Your task to perform on an android device: Clear the cart on newegg. Search for apple airpods pro on newegg, select the first entry, and add it to the cart. Image 0: 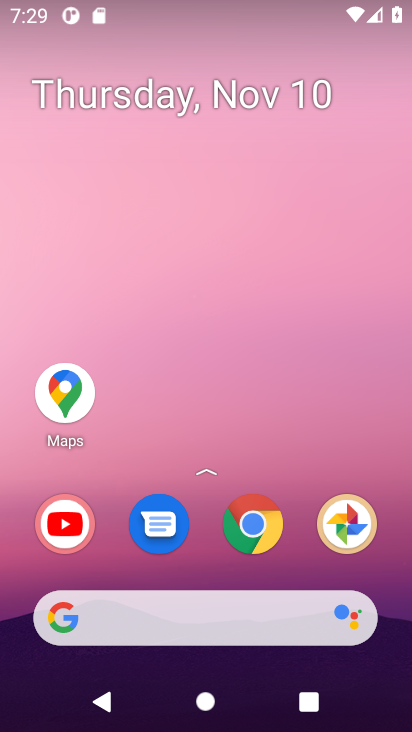
Step 0: click (246, 614)
Your task to perform on an android device: Clear the cart on newegg. Search for apple airpods pro on newegg, select the first entry, and add it to the cart. Image 1: 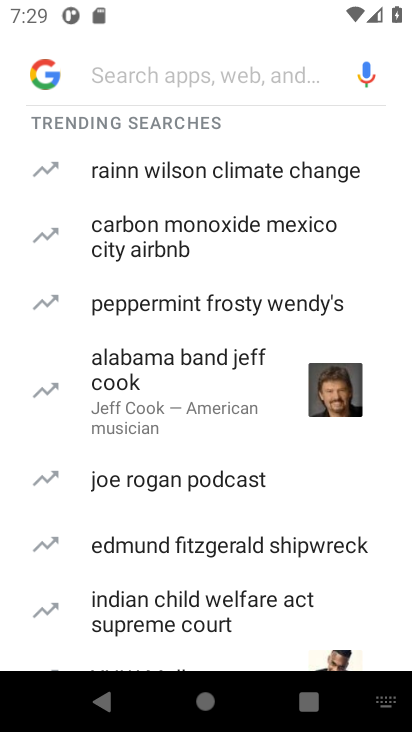
Step 1: type "newegg"
Your task to perform on an android device: Clear the cart on newegg. Search for apple airpods pro on newegg, select the first entry, and add it to the cart. Image 2: 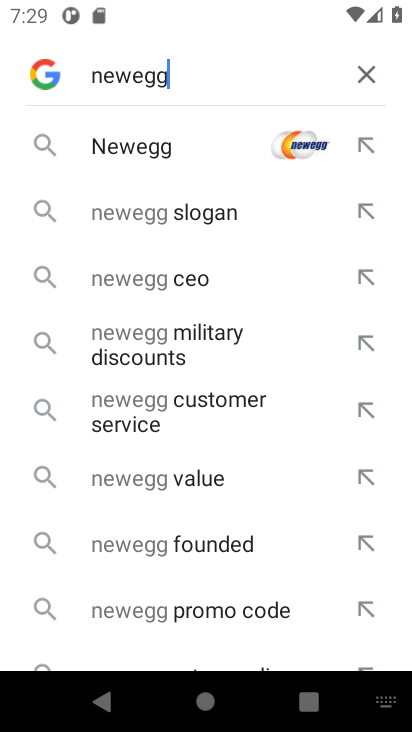
Step 2: click (154, 157)
Your task to perform on an android device: Clear the cart on newegg. Search for apple airpods pro on newegg, select the first entry, and add it to the cart. Image 3: 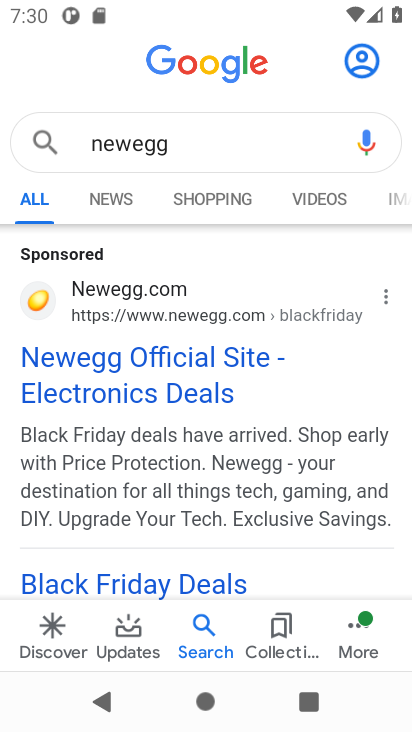
Step 3: drag from (192, 500) to (335, 198)
Your task to perform on an android device: Clear the cart on newegg. Search for apple airpods pro on newegg, select the first entry, and add it to the cart. Image 4: 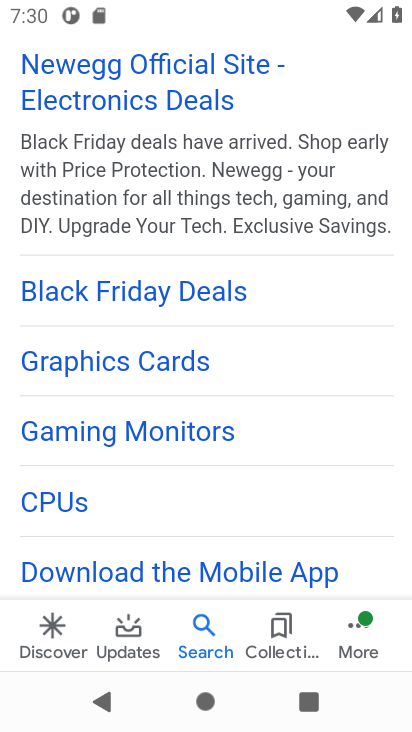
Step 4: drag from (222, 510) to (349, 156)
Your task to perform on an android device: Clear the cart on newegg. Search for apple airpods pro on newegg, select the first entry, and add it to the cart. Image 5: 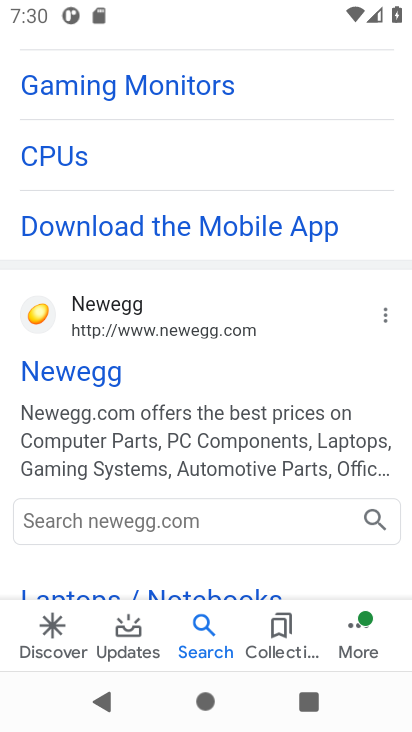
Step 5: click (99, 512)
Your task to perform on an android device: Clear the cart on newegg. Search for apple airpods pro on newegg, select the first entry, and add it to the cart. Image 6: 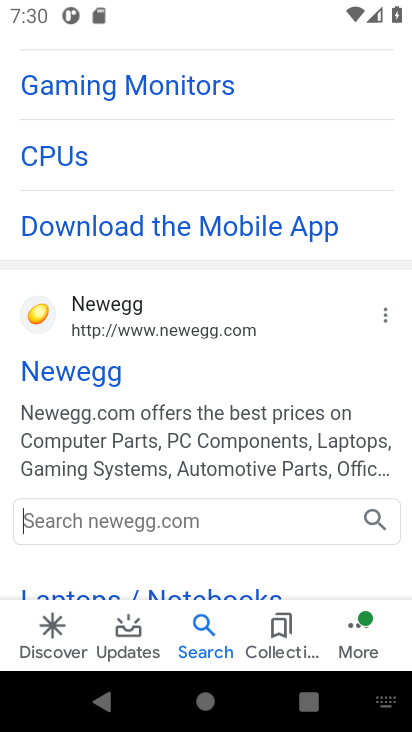
Step 6: type "apple airpods pro"
Your task to perform on an android device: Clear the cart on newegg. Search for apple airpods pro on newegg, select the first entry, and add it to the cart. Image 7: 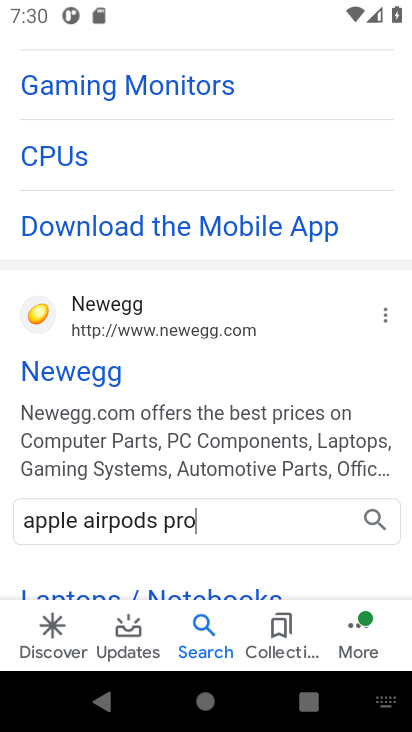
Step 7: click (372, 517)
Your task to perform on an android device: Clear the cart on newegg. Search for apple airpods pro on newegg, select the first entry, and add it to the cart. Image 8: 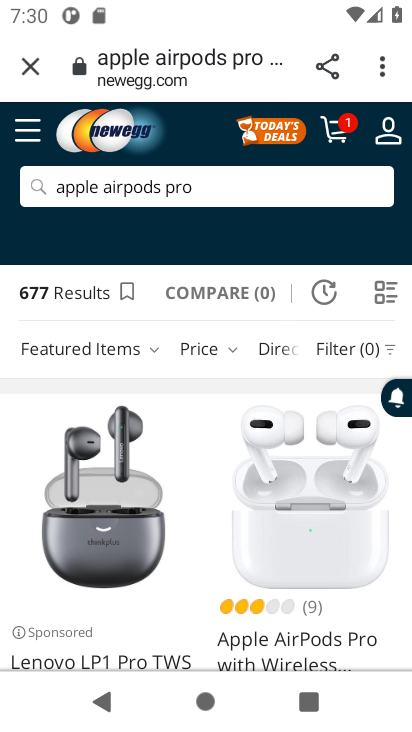
Step 8: drag from (176, 581) to (240, 432)
Your task to perform on an android device: Clear the cart on newegg. Search for apple airpods pro on newegg, select the first entry, and add it to the cart. Image 9: 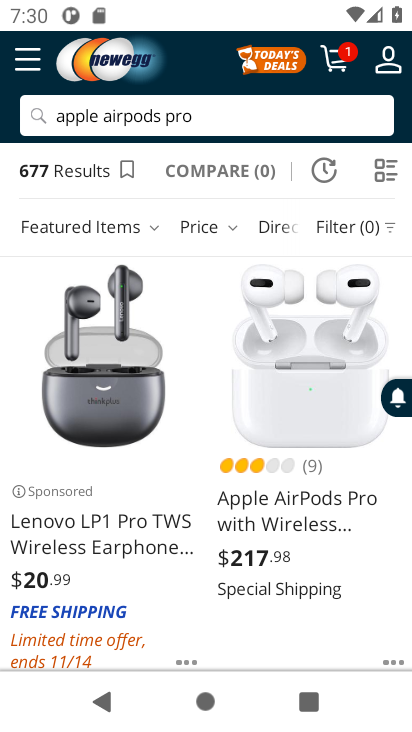
Step 9: click (288, 514)
Your task to perform on an android device: Clear the cart on newegg. Search for apple airpods pro on newegg, select the first entry, and add it to the cart. Image 10: 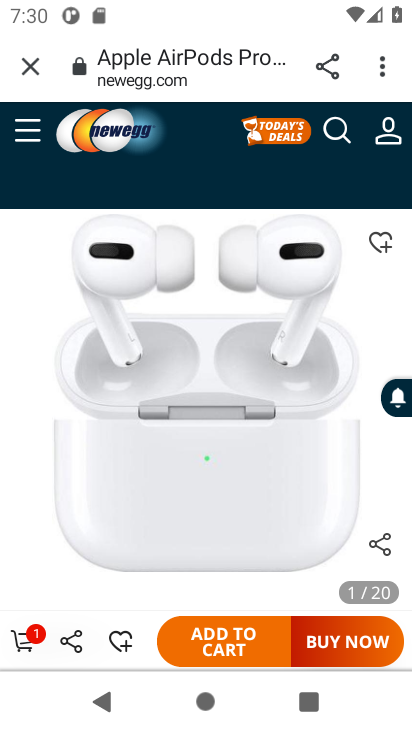
Step 10: click (288, 514)
Your task to perform on an android device: Clear the cart on newegg. Search for apple airpods pro on newegg, select the first entry, and add it to the cart. Image 11: 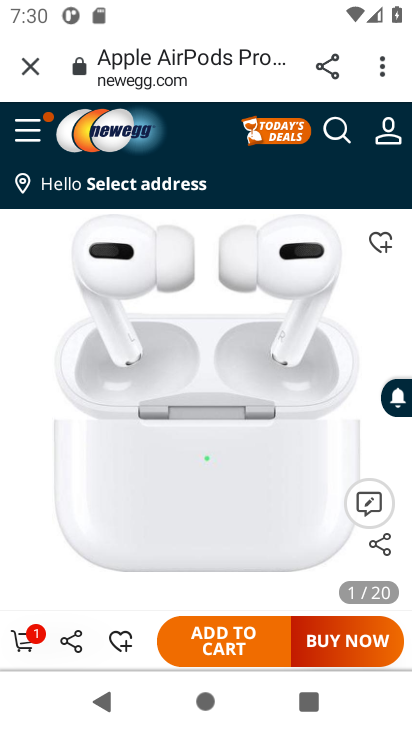
Step 11: click (225, 652)
Your task to perform on an android device: Clear the cart on newegg. Search for apple airpods pro on newegg, select the first entry, and add it to the cart. Image 12: 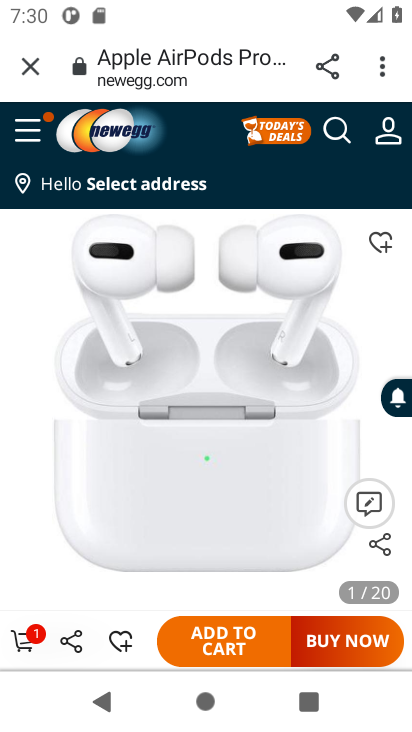
Step 12: click (225, 652)
Your task to perform on an android device: Clear the cart on newegg. Search for apple airpods pro on newegg, select the first entry, and add it to the cart. Image 13: 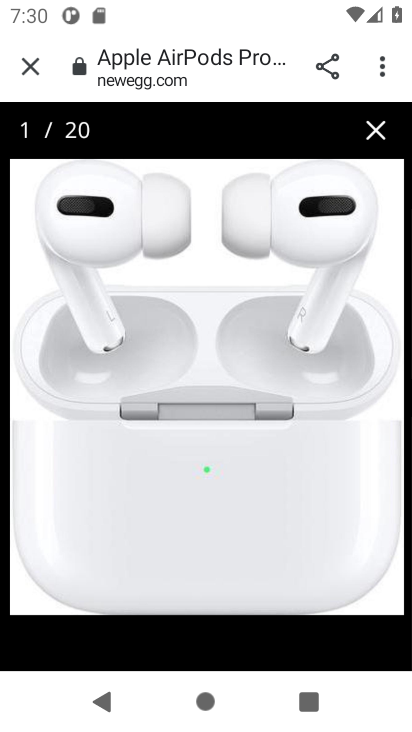
Step 13: click (374, 132)
Your task to perform on an android device: Clear the cart on newegg. Search for apple airpods pro on newegg, select the first entry, and add it to the cart. Image 14: 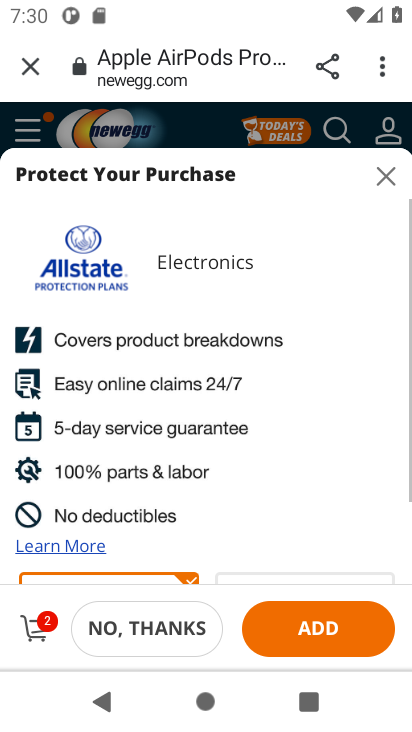
Step 14: task complete